Your task to perform on an android device: allow notifications from all sites in the chrome app Image 0: 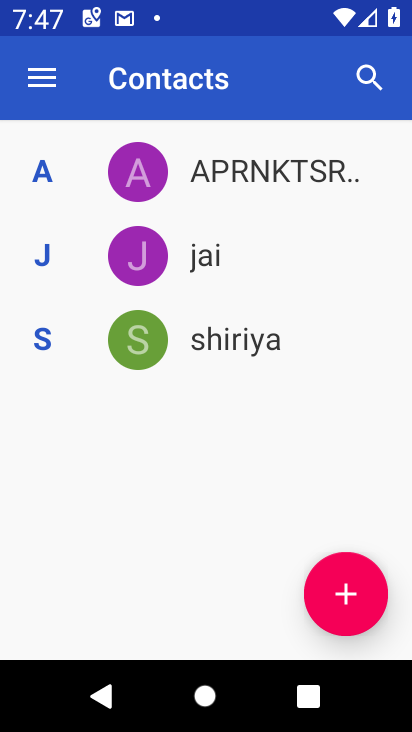
Step 0: press home button
Your task to perform on an android device: allow notifications from all sites in the chrome app Image 1: 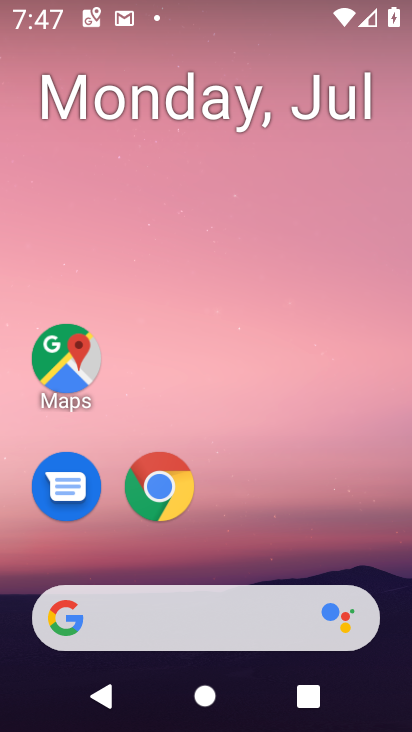
Step 1: drag from (355, 516) to (384, 82)
Your task to perform on an android device: allow notifications from all sites in the chrome app Image 2: 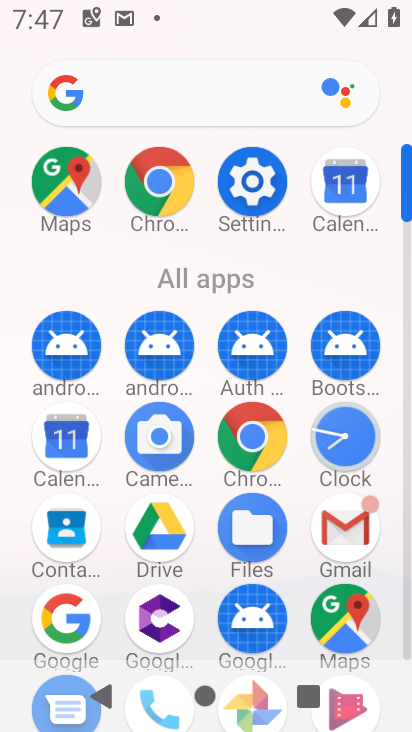
Step 2: click (264, 429)
Your task to perform on an android device: allow notifications from all sites in the chrome app Image 3: 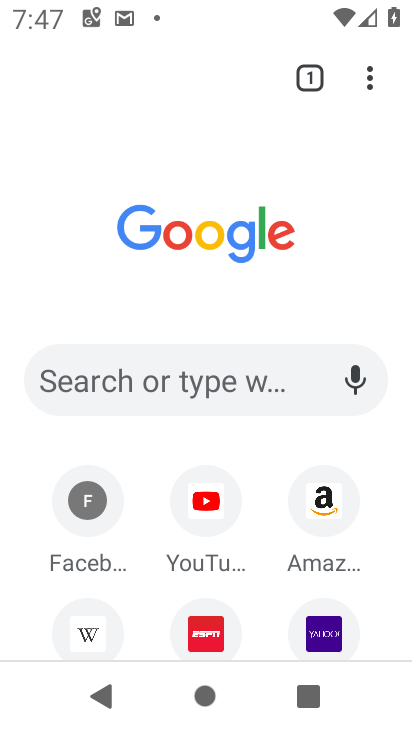
Step 3: click (367, 81)
Your task to perform on an android device: allow notifications from all sites in the chrome app Image 4: 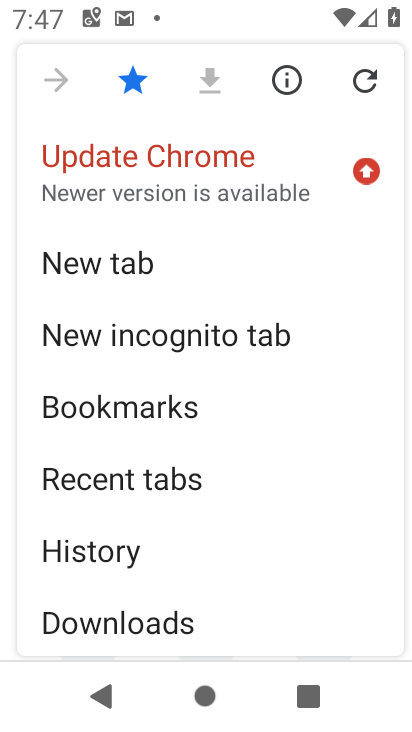
Step 4: drag from (357, 449) to (366, 371)
Your task to perform on an android device: allow notifications from all sites in the chrome app Image 5: 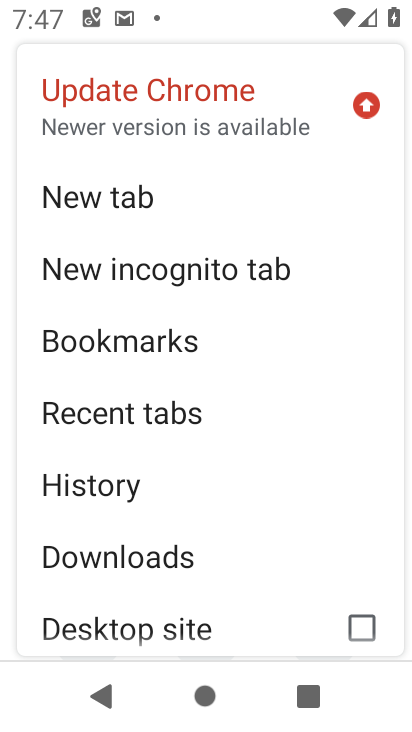
Step 5: drag from (346, 458) to (336, 369)
Your task to perform on an android device: allow notifications from all sites in the chrome app Image 6: 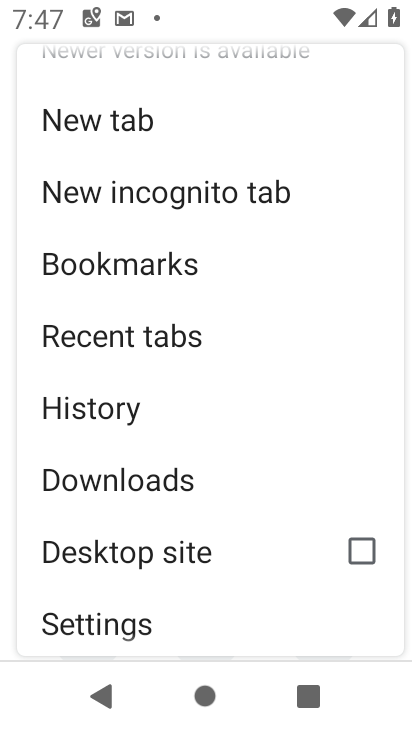
Step 6: drag from (305, 458) to (296, 345)
Your task to perform on an android device: allow notifications from all sites in the chrome app Image 7: 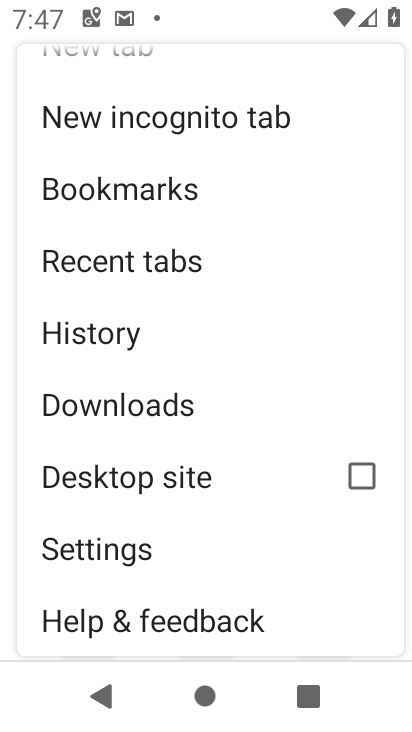
Step 7: click (241, 557)
Your task to perform on an android device: allow notifications from all sites in the chrome app Image 8: 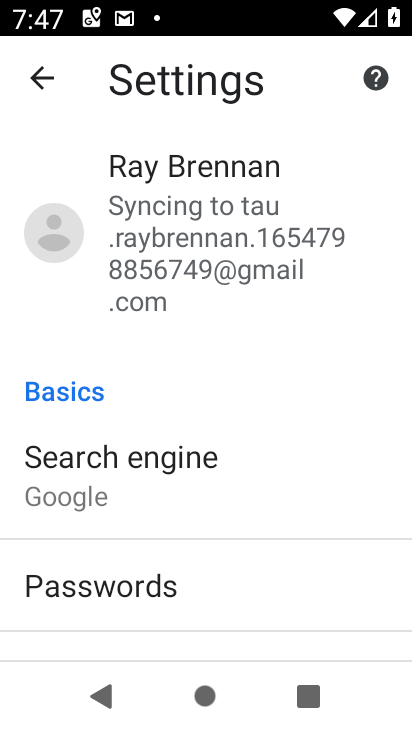
Step 8: drag from (279, 564) to (284, 501)
Your task to perform on an android device: allow notifications from all sites in the chrome app Image 9: 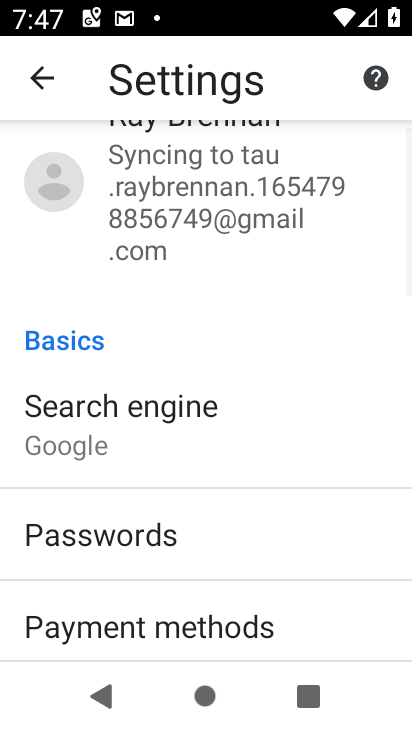
Step 9: drag from (337, 552) to (347, 461)
Your task to perform on an android device: allow notifications from all sites in the chrome app Image 10: 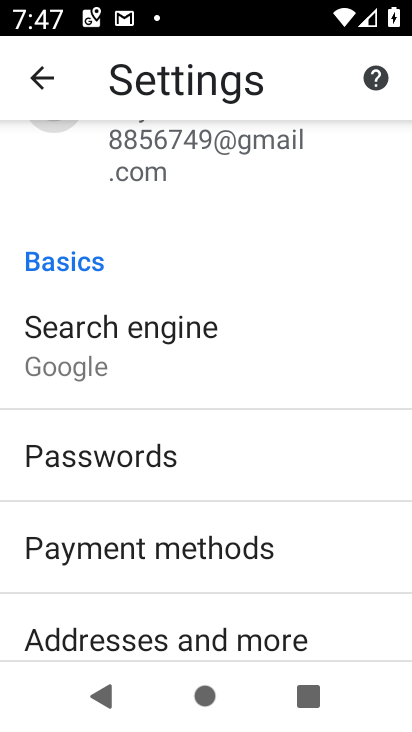
Step 10: drag from (359, 547) to (359, 472)
Your task to perform on an android device: allow notifications from all sites in the chrome app Image 11: 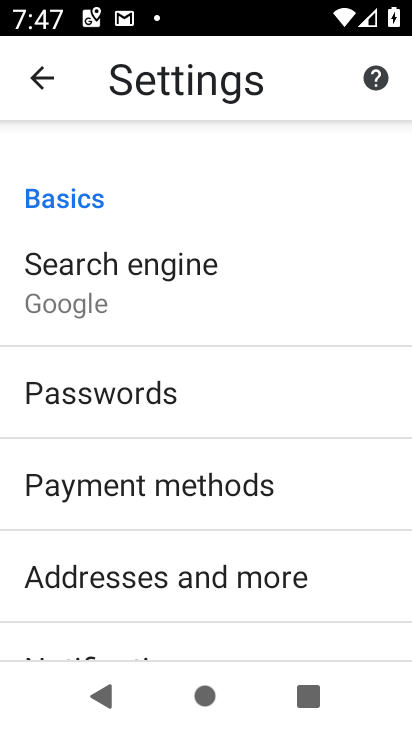
Step 11: drag from (352, 577) to (348, 487)
Your task to perform on an android device: allow notifications from all sites in the chrome app Image 12: 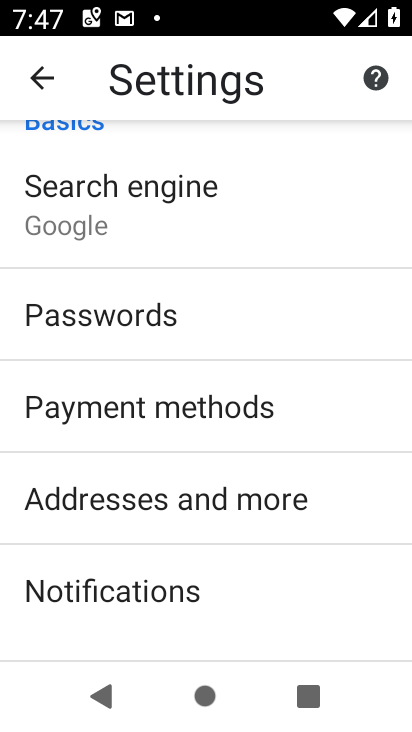
Step 12: drag from (355, 562) to (354, 500)
Your task to perform on an android device: allow notifications from all sites in the chrome app Image 13: 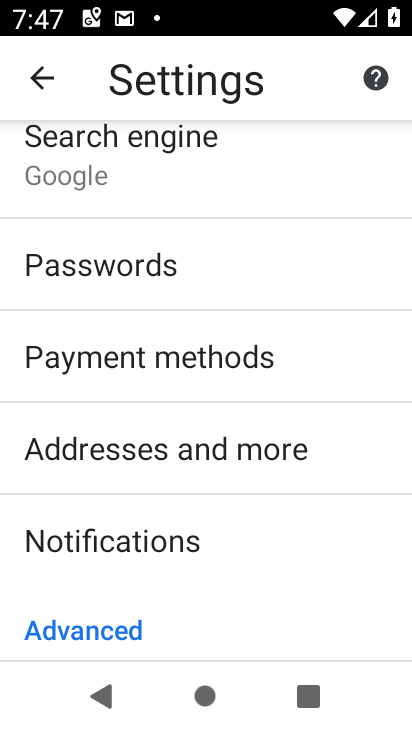
Step 13: drag from (347, 561) to (346, 480)
Your task to perform on an android device: allow notifications from all sites in the chrome app Image 14: 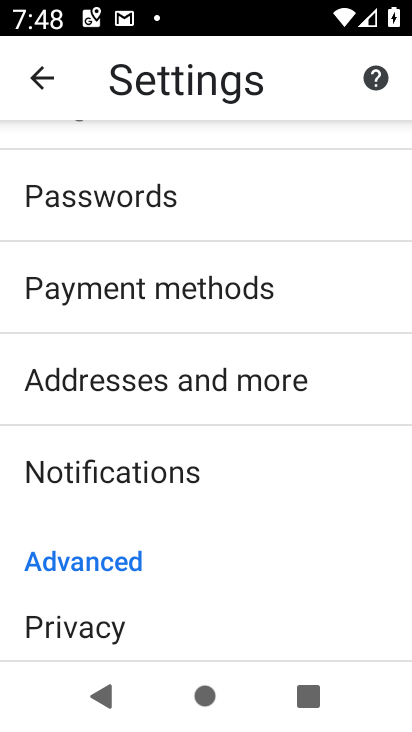
Step 14: drag from (342, 539) to (339, 459)
Your task to perform on an android device: allow notifications from all sites in the chrome app Image 15: 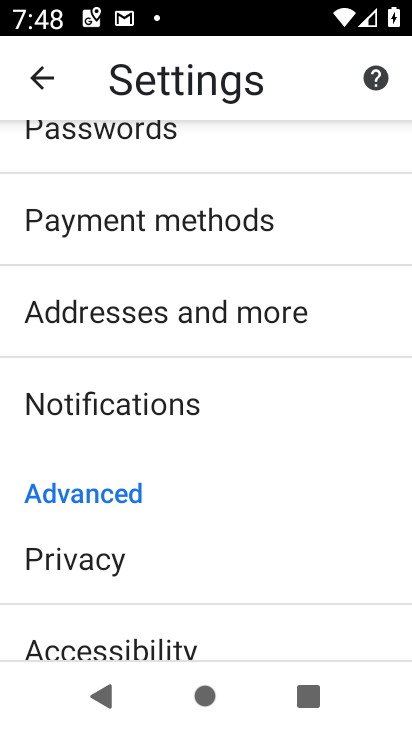
Step 15: drag from (336, 522) to (333, 428)
Your task to perform on an android device: allow notifications from all sites in the chrome app Image 16: 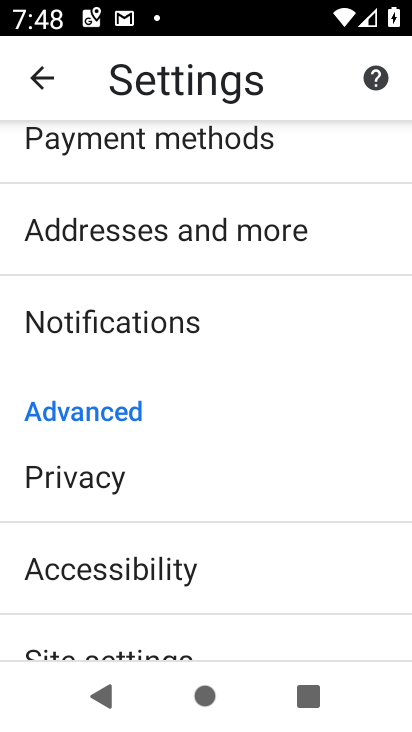
Step 16: drag from (341, 510) to (342, 403)
Your task to perform on an android device: allow notifications from all sites in the chrome app Image 17: 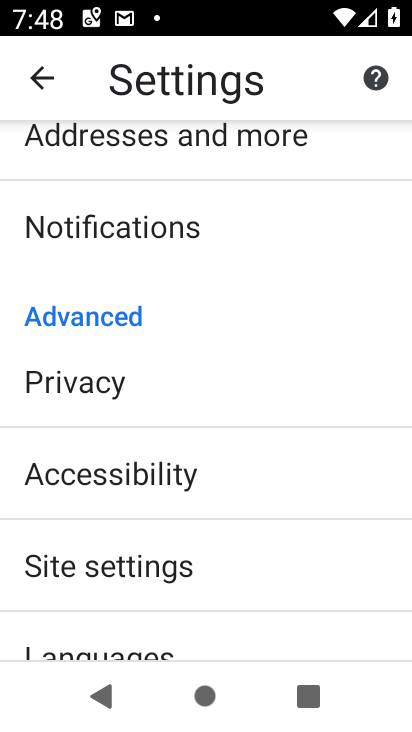
Step 17: drag from (350, 502) to (349, 356)
Your task to perform on an android device: allow notifications from all sites in the chrome app Image 18: 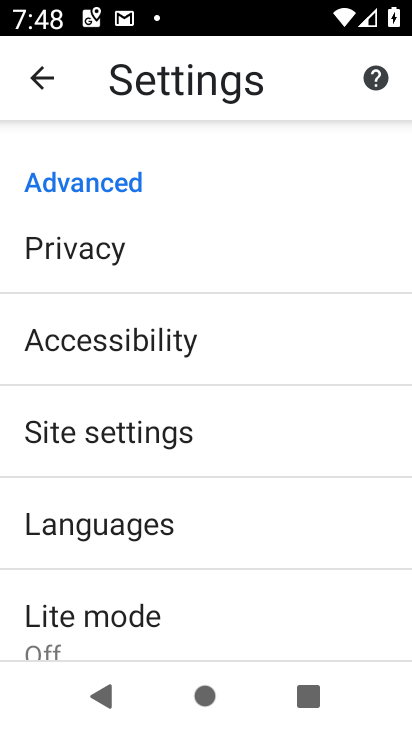
Step 18: click (333, 441)
Your task to perform on an android device: allow notifications from all sites in the chrome app Image 19: 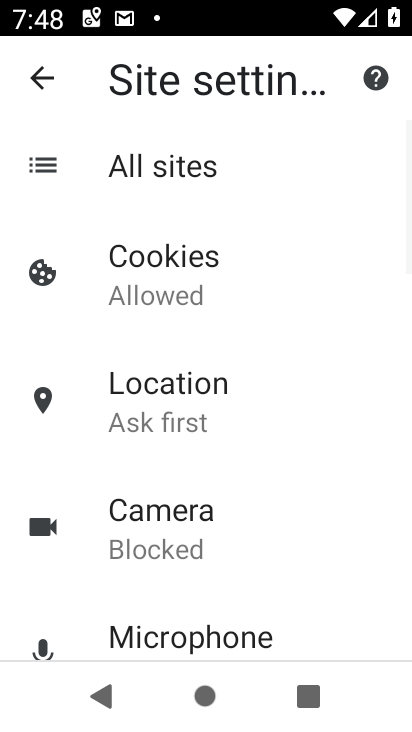
Step 19: drag from (340, 469) to (350, 379)
Your task to perform on an android device: allow notifications from all sites in the chrome app Image 20: 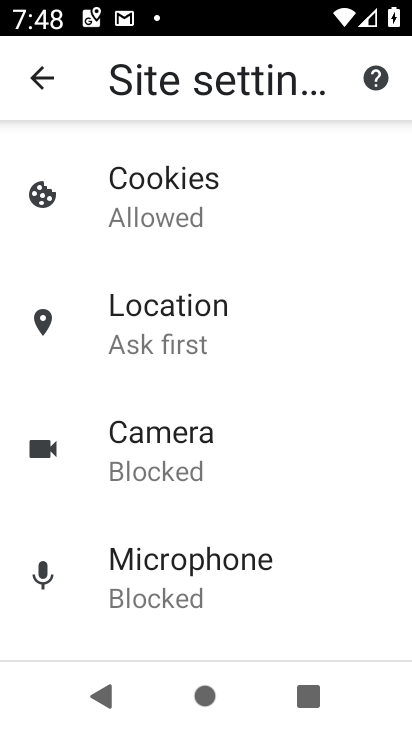
Step 20: drag from (346, 482) to (348, 397)
Your task to perform on an android device: allow notifications from all sites in the chrome app Image 21: 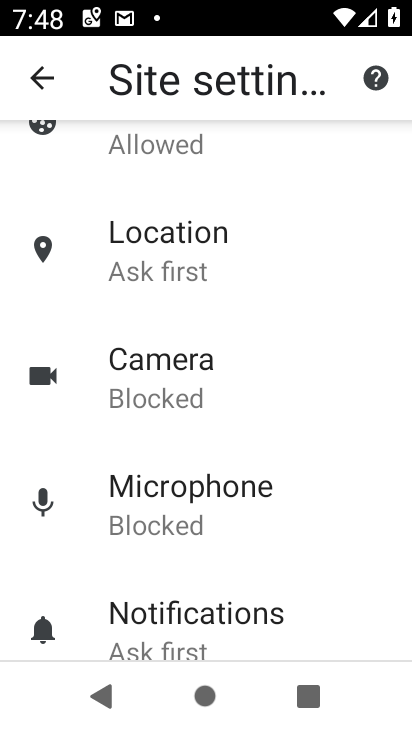
Step 21: drag from (344, 466) to (341, 366)
Your task to perform on an android device: allow notifications from all sites in the chrome app Image 22: 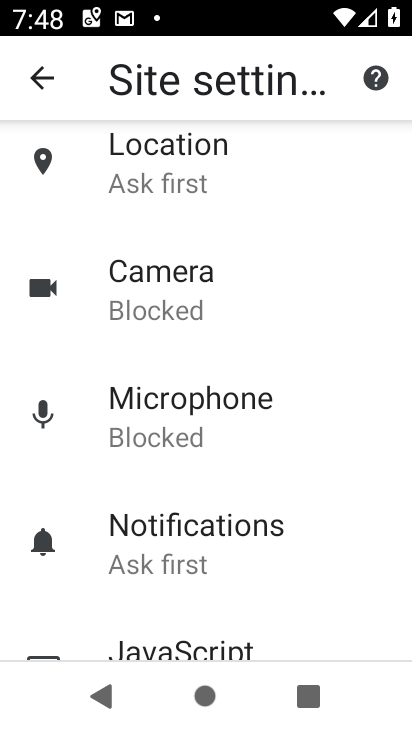
Step 22: drag from (341, 466) to (339, 343)
Your task to perform on an android device: allow notifications from all sites in the chrome app Image 23: 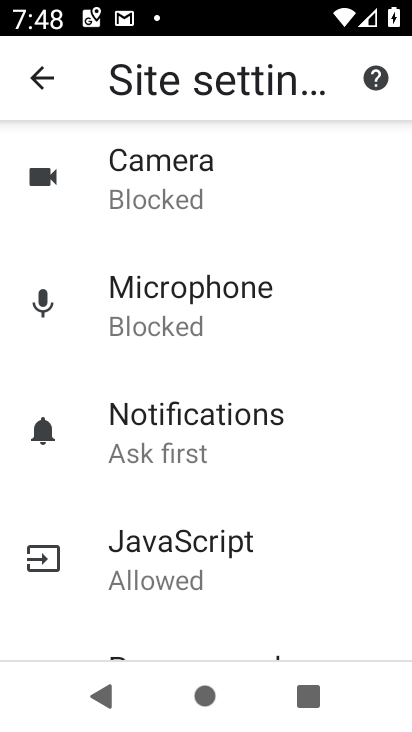
Step 23: click (337, 447)
Your task to perform on an android device: allow notifications from all sites in the chrome app Image 24: 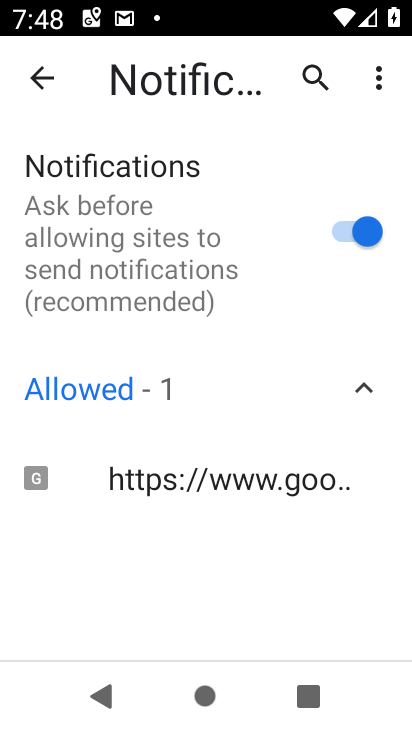
Step 24: task complete